Your task to perform on an android device: Go to internet settings Image 0: 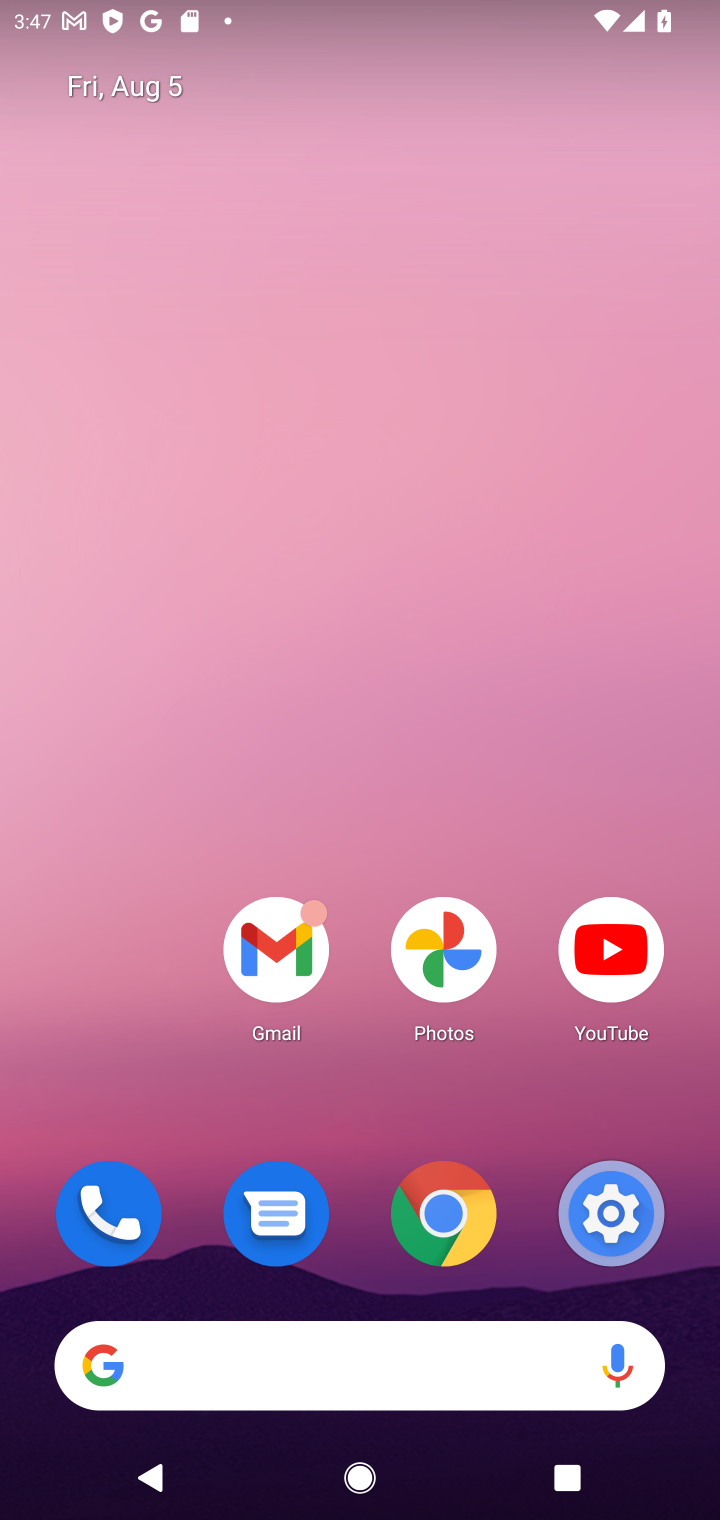
Step 0: click (581, 1200)
Your task to perform on an android device: Go to internet settings Image 1: 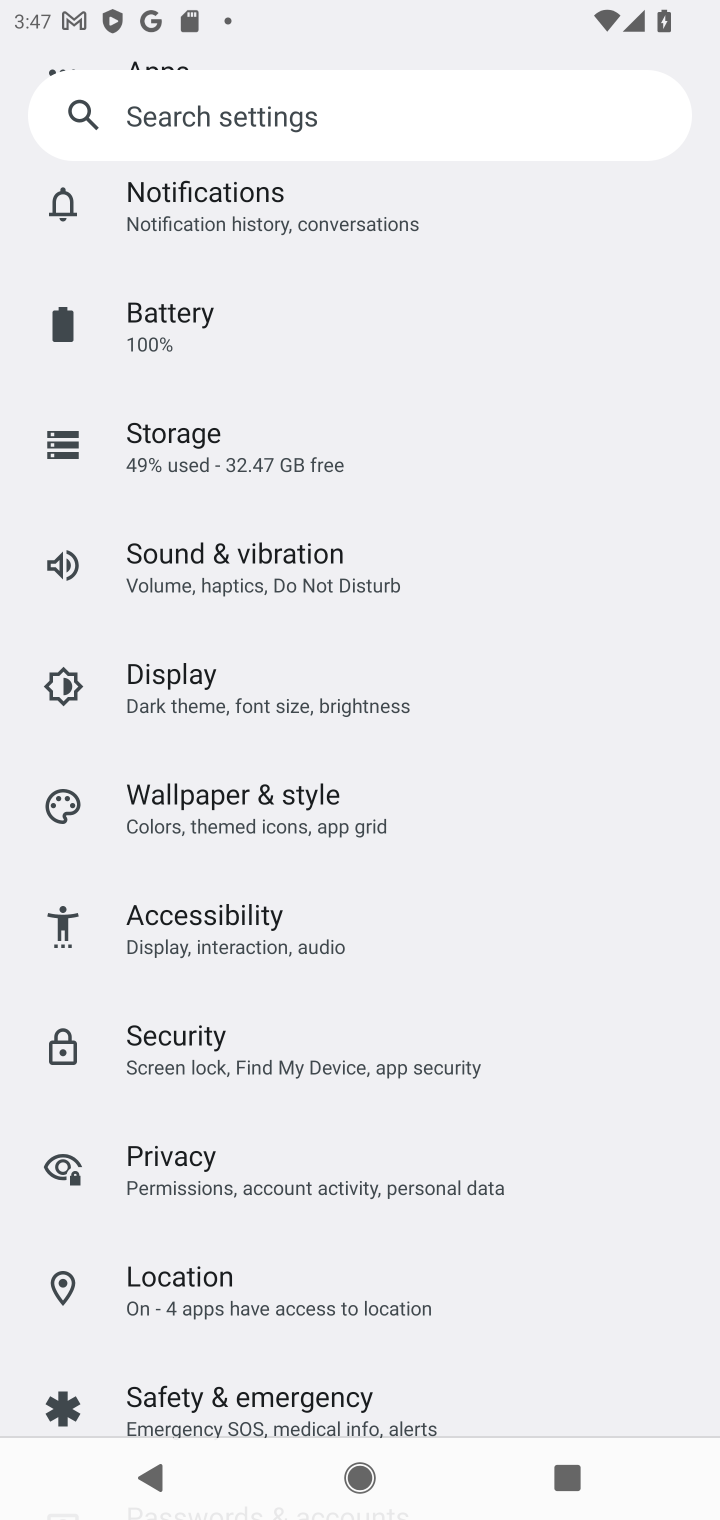
Step 1: drag from (387, 447) to (451, 1500)
Your task to perform on an android device: Go to internet settings Image 2: 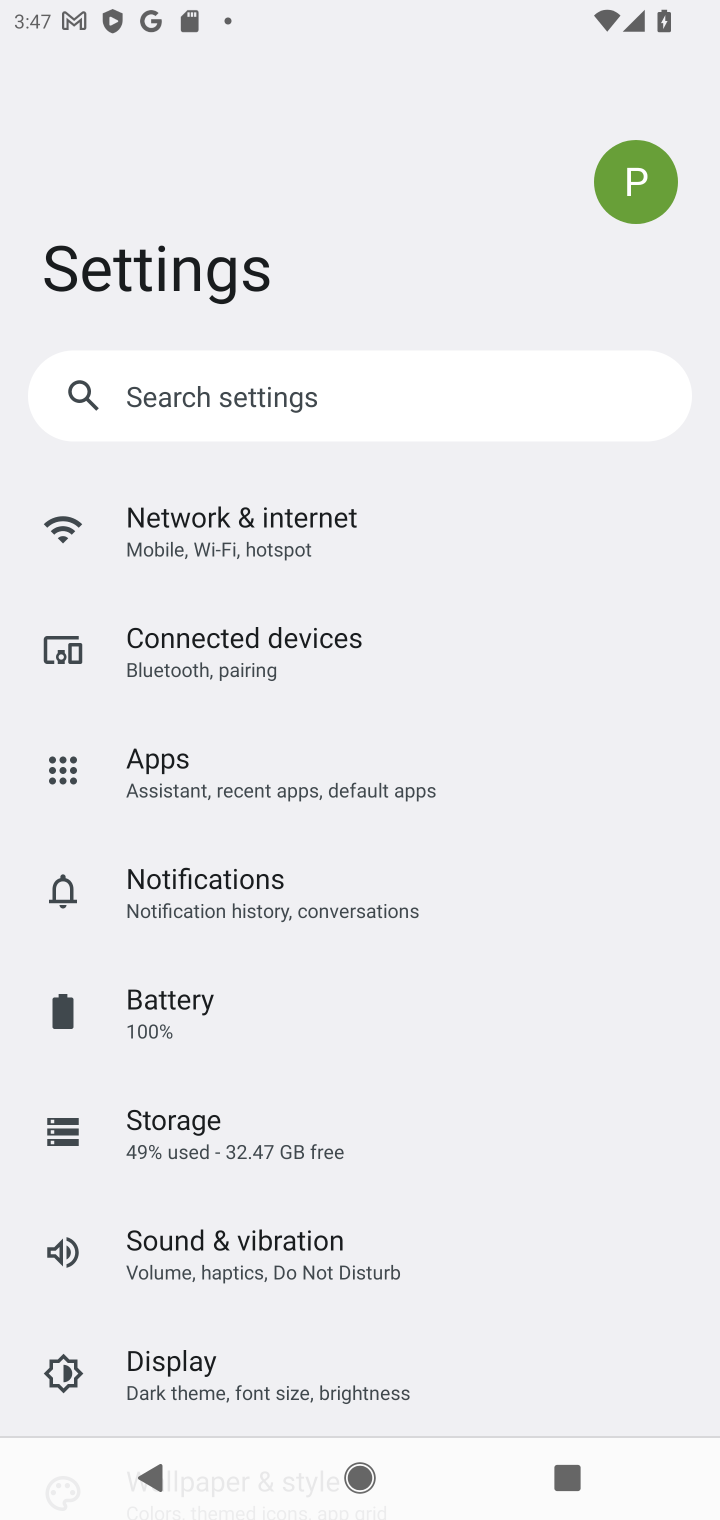
Step 2: click (389, 543)
Your task to perform on an android device: Go to internet settings Image 3: 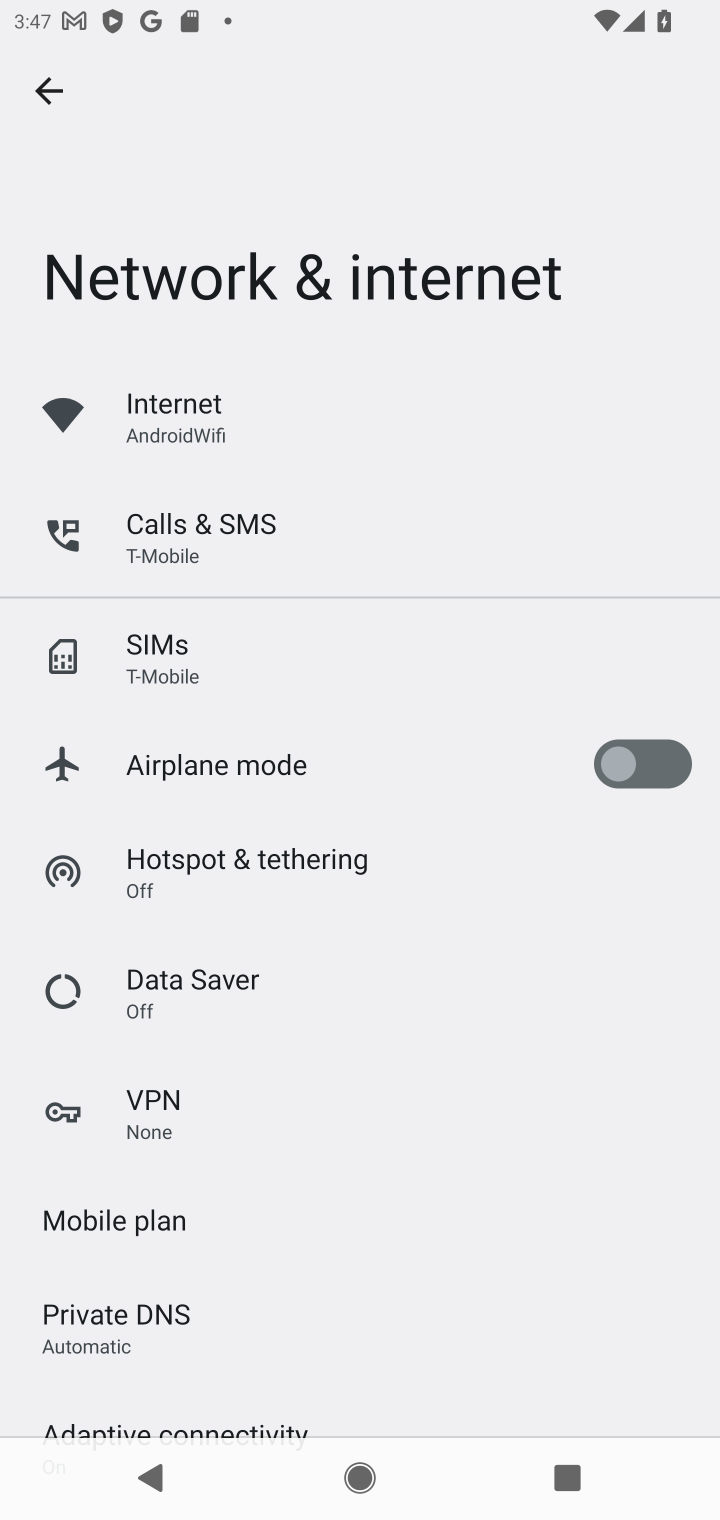
Step 3: task complete